Your task to perform on an android device: turn off wifi Image 0: 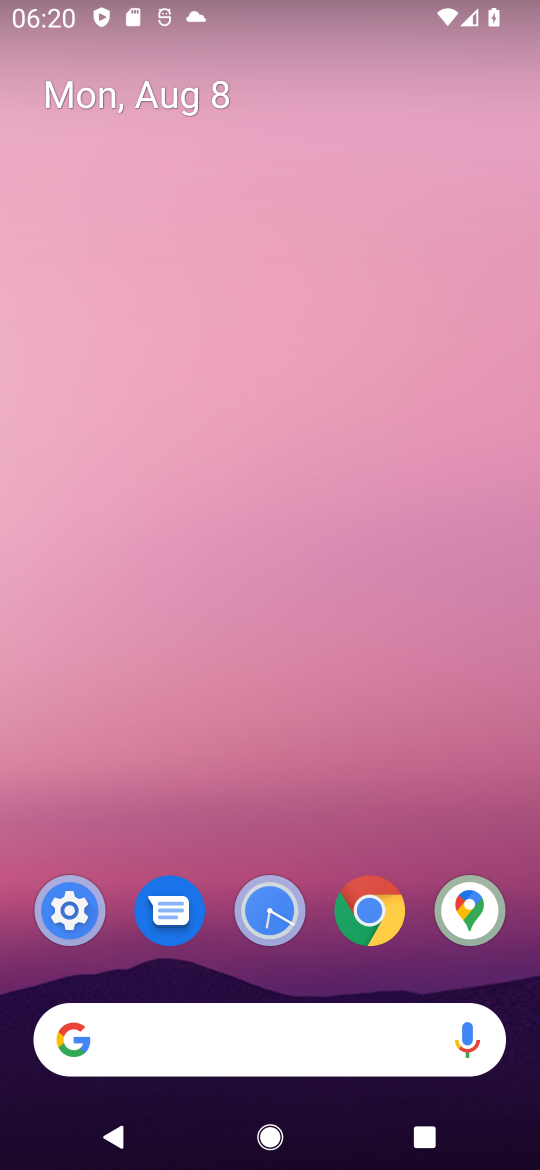
Step 0: press home button
Your task to perform on an android device: turn off wifi Image 1: 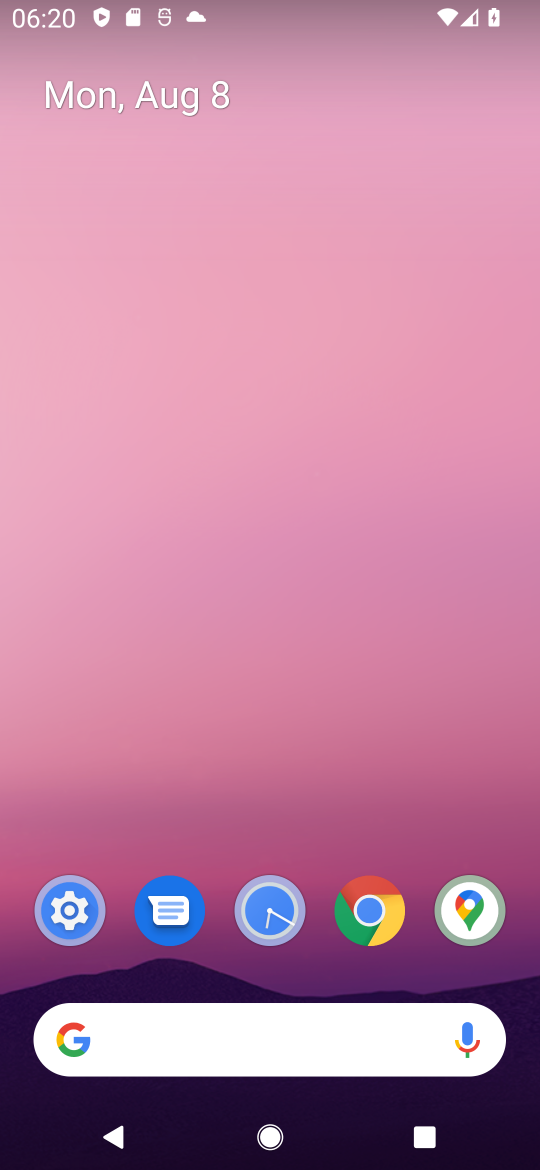
Step 1: click (77, 909)
Your task to perform on an android device: turn off wifi Image 2: 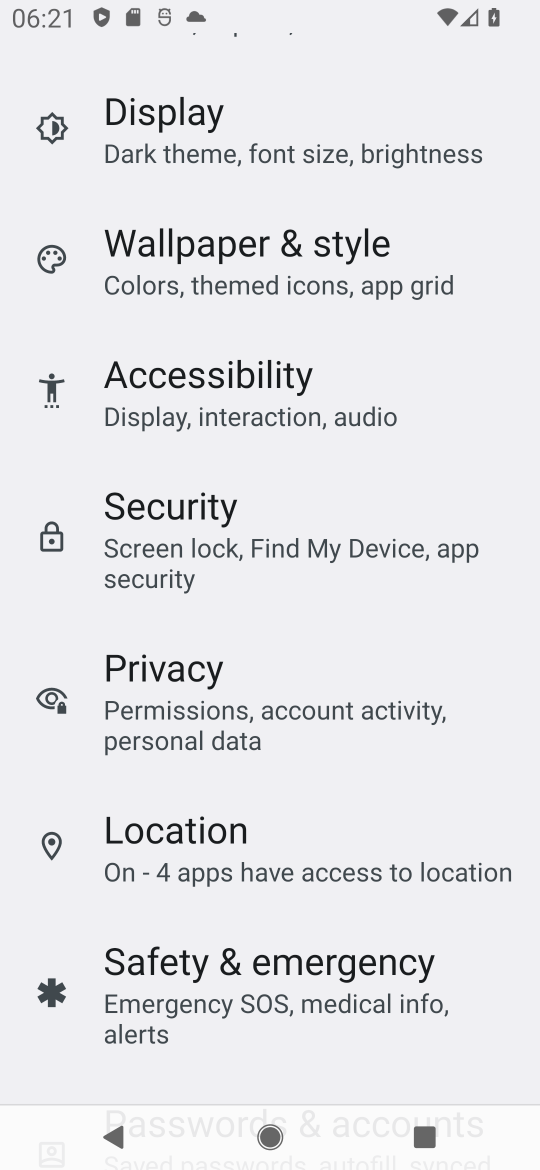
Step 2: drag from (264, 705) to (283, 841)
Your task to perform on an android device: turn off wifi Image 3: 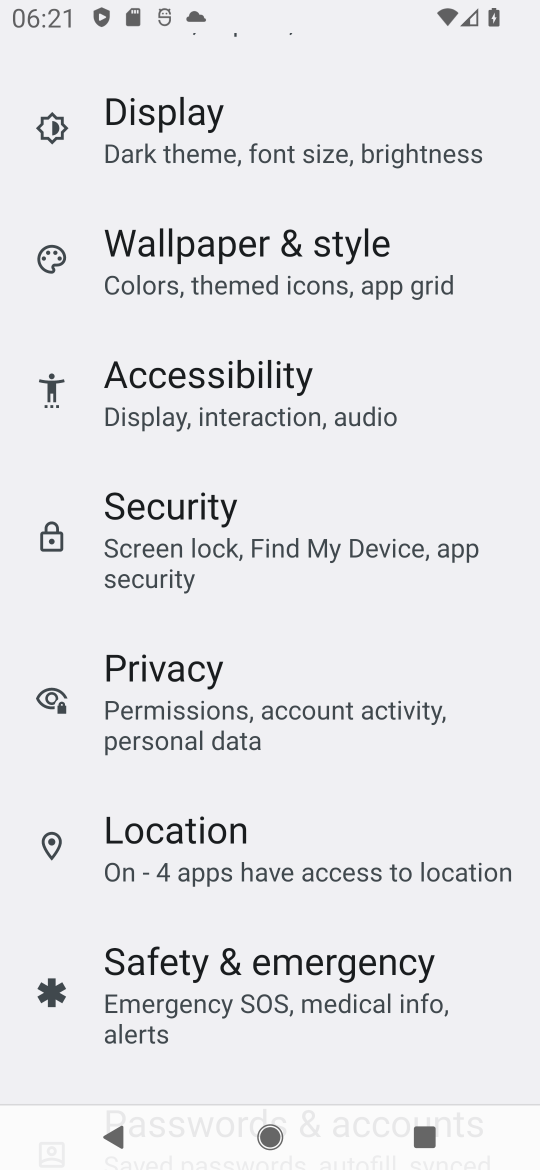
Step 3: drag from (289, 506) to (292, 766)
Your task to perform on an android device: turn off wifi Image 4: 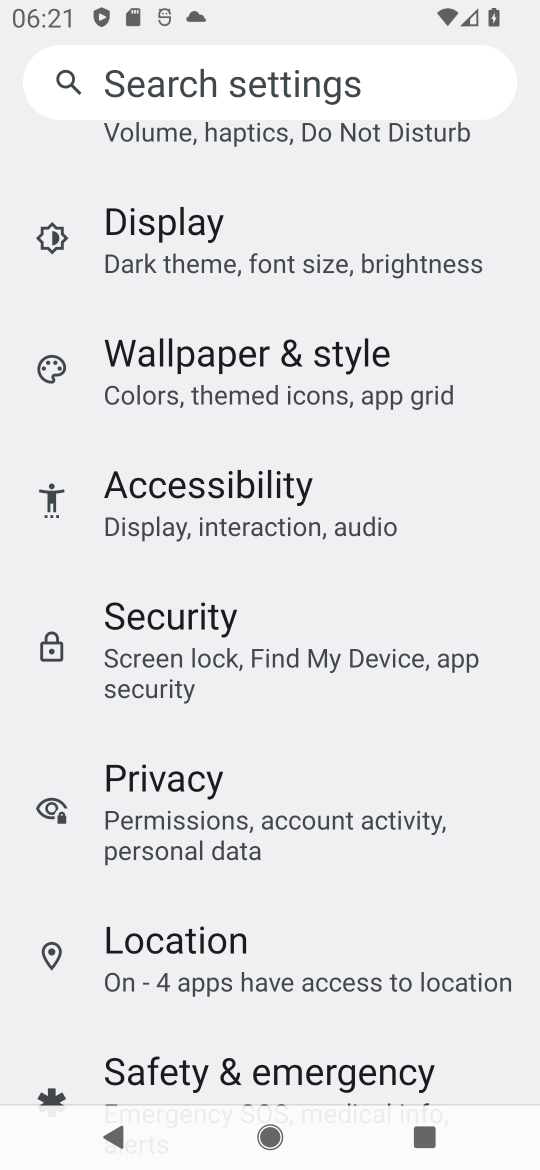
Step 4: drag from (260, 318) to (290, 684)
Your task to perform on an android device: turn off wifi Image 5: 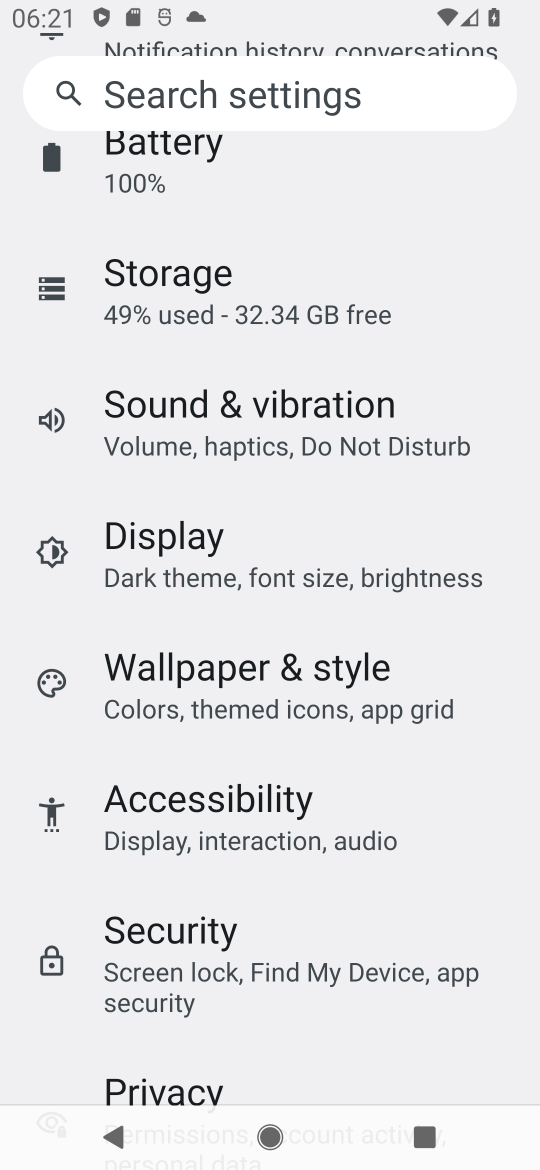
Step 5: drag from (290, 249) to (345, 455)
Your task to perform on an android device: turn off wifi Image 6: 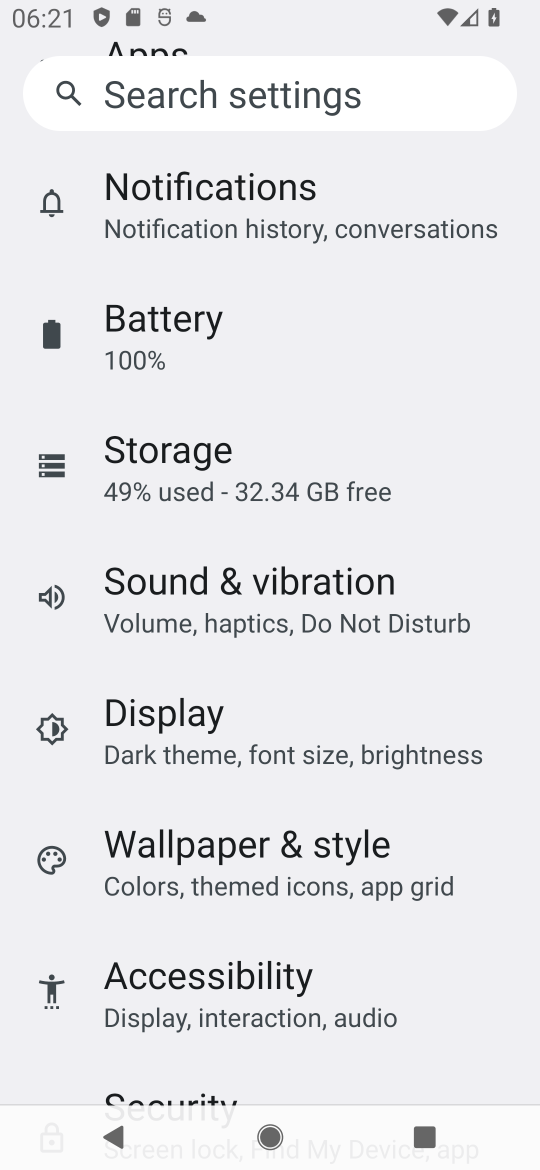
Step 6: drag from (293, 285) to (302, 439)
Your task to perform on an android device: turn off wifi Image 7: 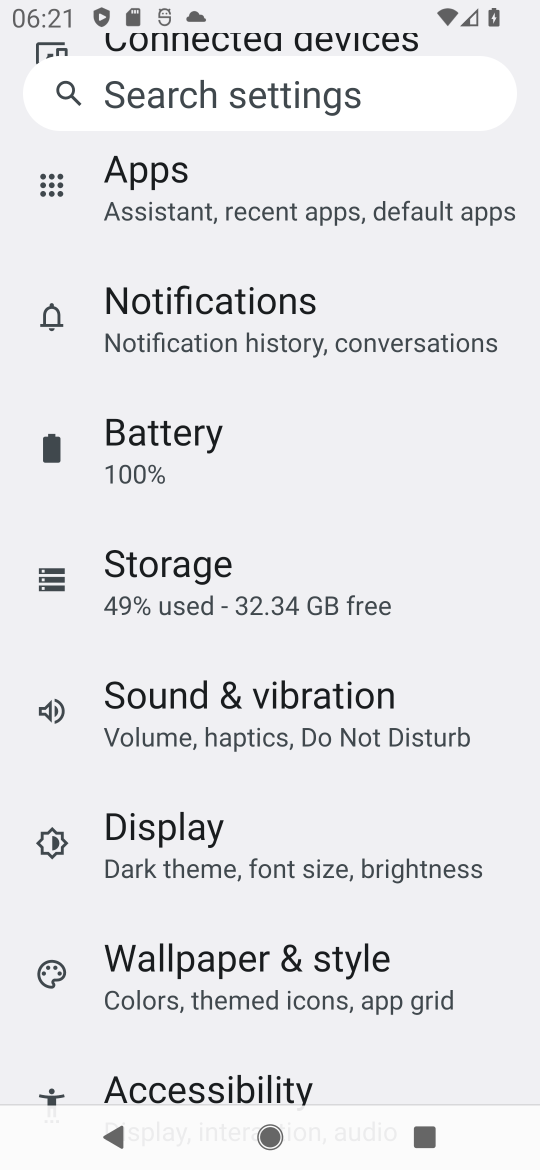
Step 7: drag from (330, 270) to (357, 457)
Your task to perform on an android device: turn off wifi Image 8: 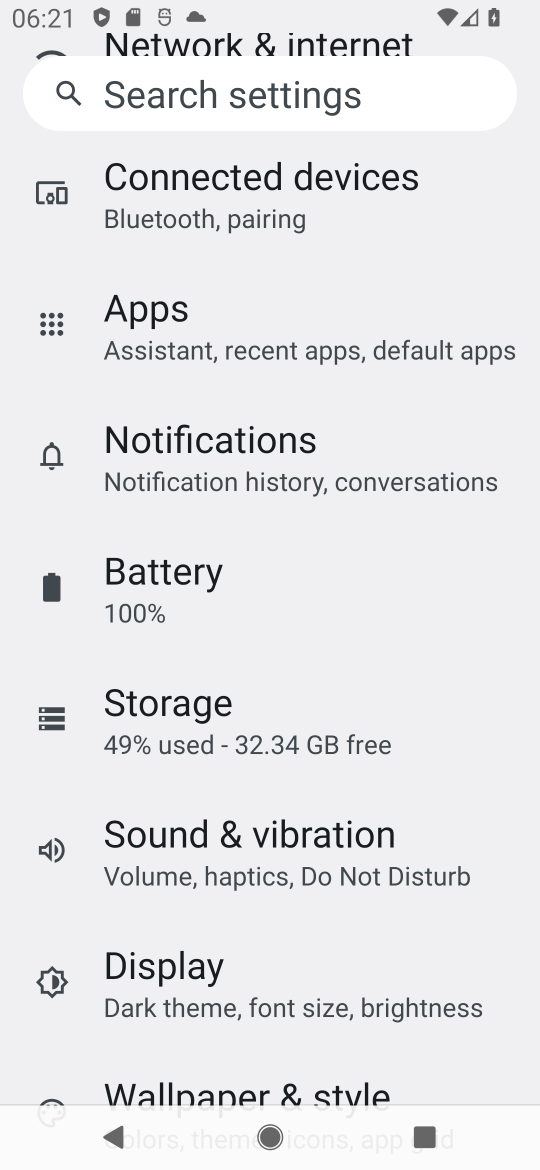
Step 8: drag from (343, 290) to (405, 491)
Your task to perform on an android device: turn off wifi Image 9: 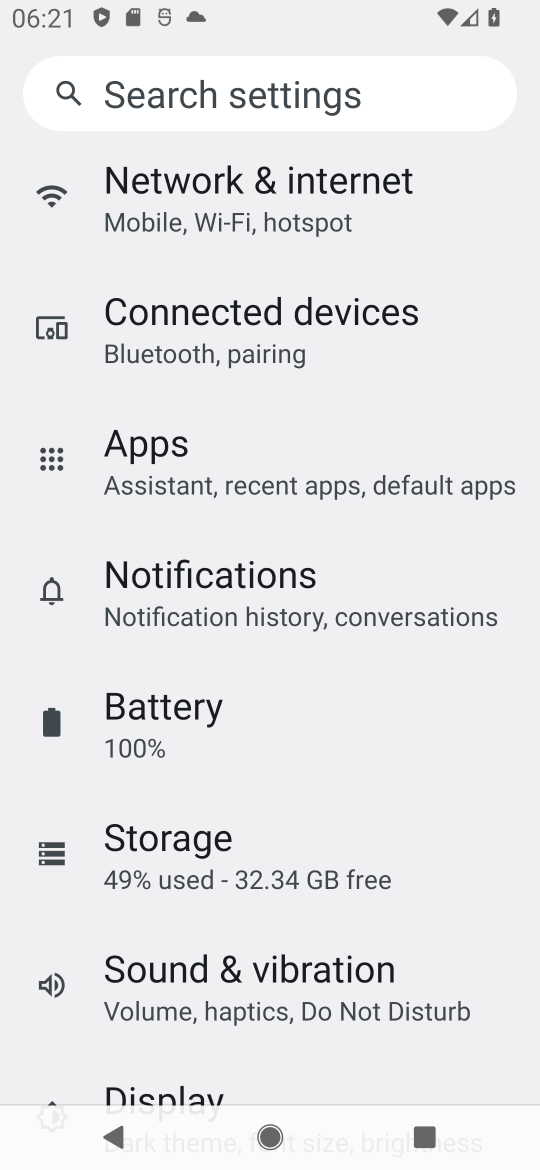
Step 9: click (261, 204)
Your task to perform on an android device: turn off wifi Image 10: 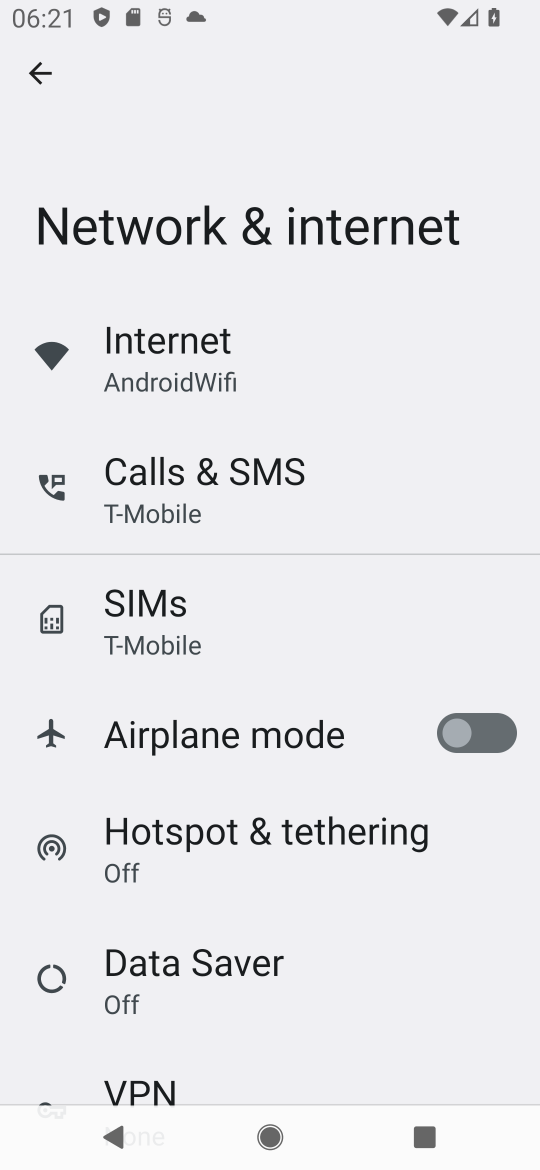
Step 10: click (181, 364)
Your task to perform on an android device: turn off wifi Image 11: 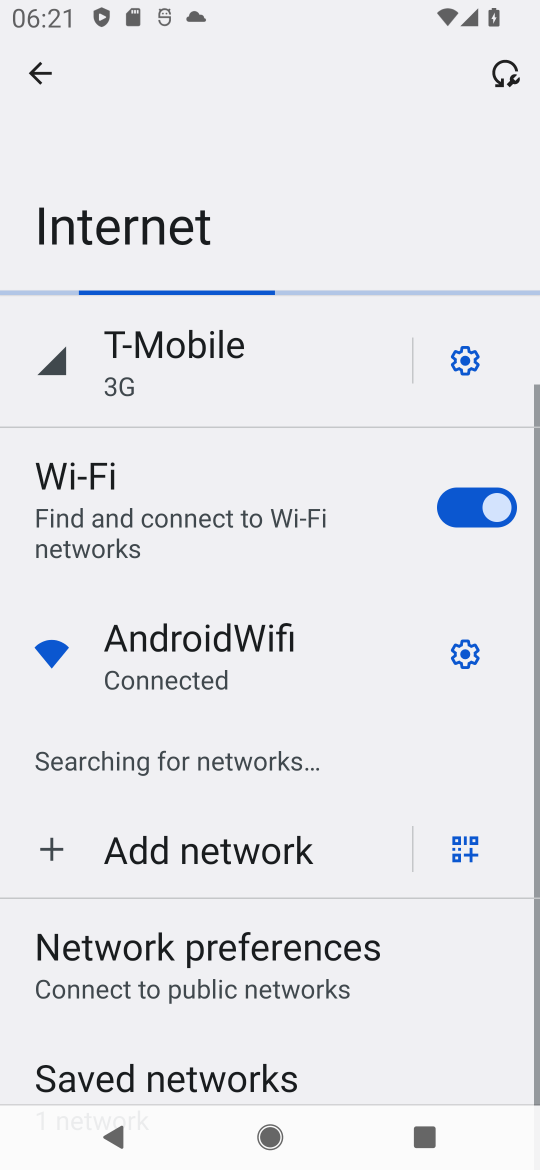
Step 11: click (472, 517)
Your task to perform on an android device: turn off wifi Image 12: 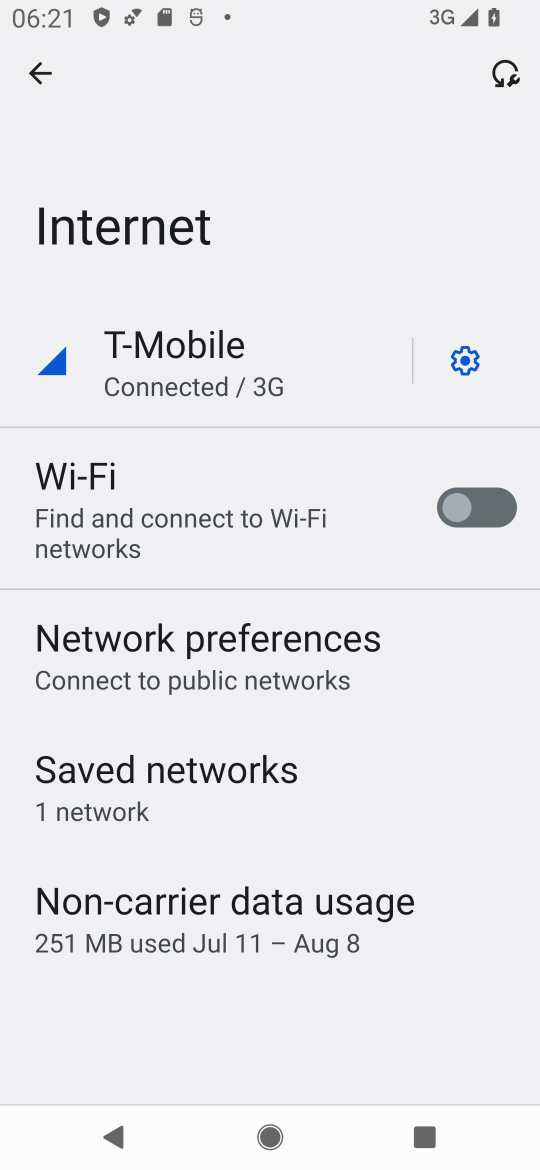
Step 12: task complete